Your task to perform on an android device: Do I have any events tomorrow? Image 0: 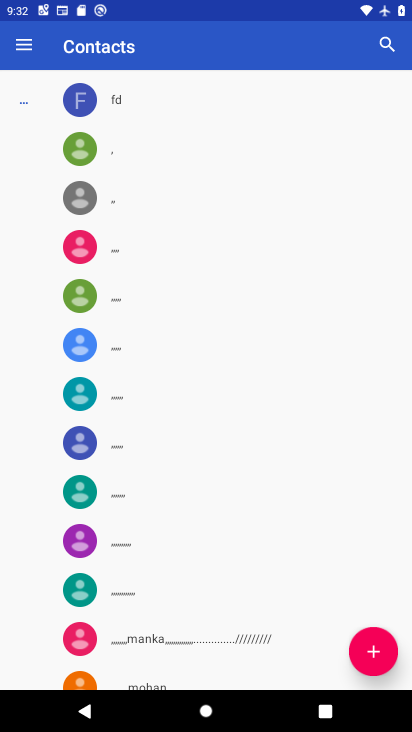
Step 0: press home button
Your task to perform on an android device: Do I have any events tomorrow? Image 1: 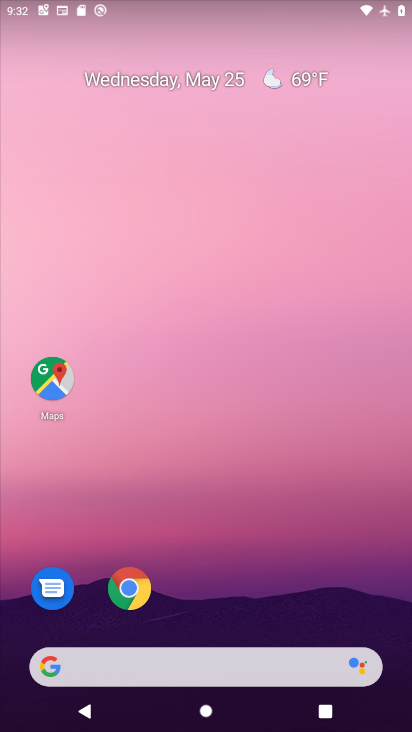
Step 1: drag from (374, 606) to (370, 178)
Your task to perform on an android device: Do I have any events tomorrow? Image 2: 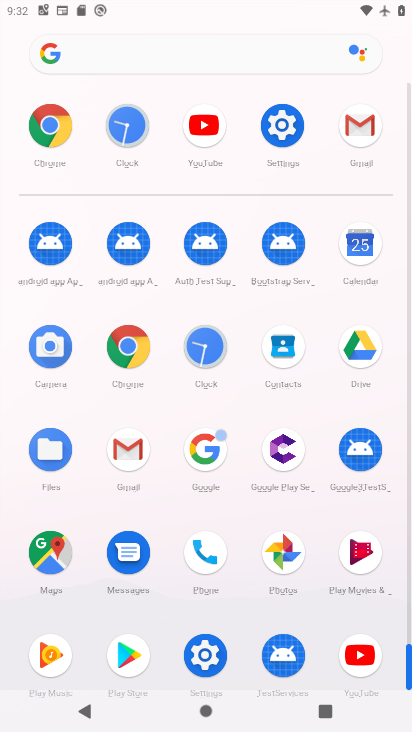
Step 2: click (368, 250)
Your task to perform on an android device: Do I have any events tomorrow? Image 3: 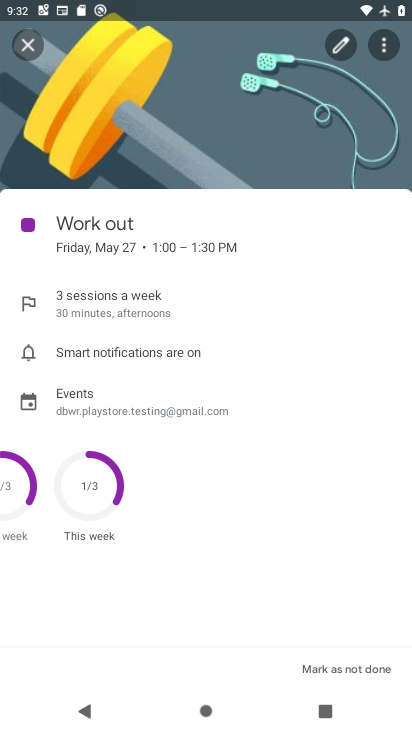
Step 3: task complete